Your task to perform on an android device: Open the calendar and show me this week's events? Image 0: 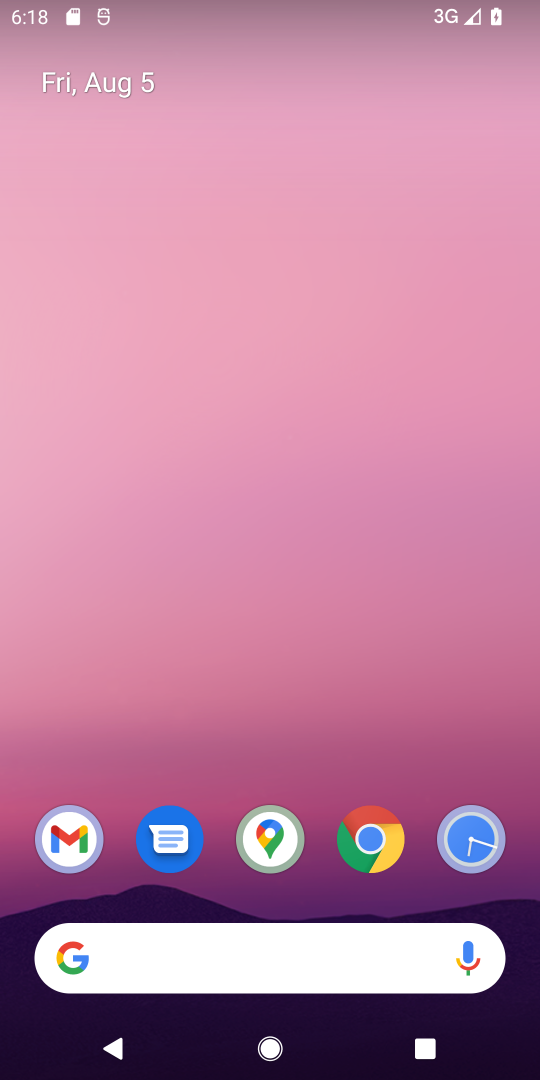
Step 0: drag from (236, 632) to (236, 146)
Your task to perform on an android device: Open the calendar and show me this week's events? Image 1: 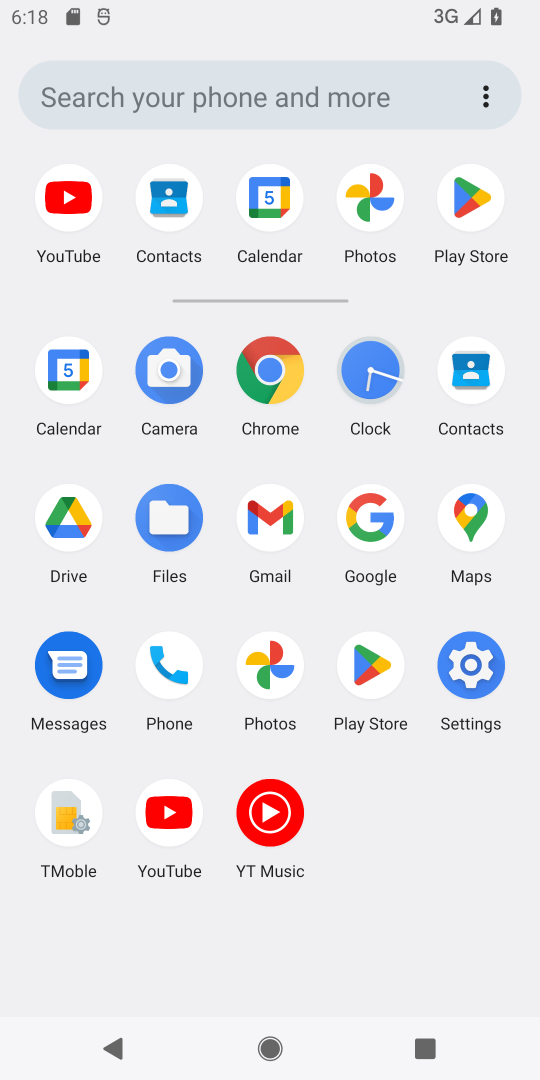
Step 1: click (55, 375)
Your task to perform on an android device: Open the calendar and show me this week's events? Image 2: 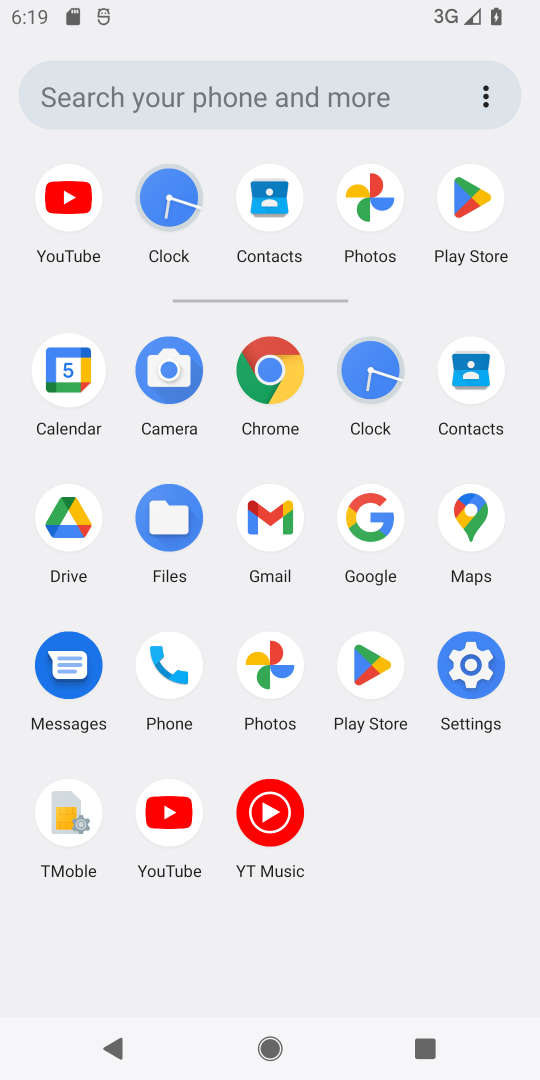
Step 2: click (83, 377)
Your task to perform on an android device: Open the calendar and show me this week's events? Image 3: 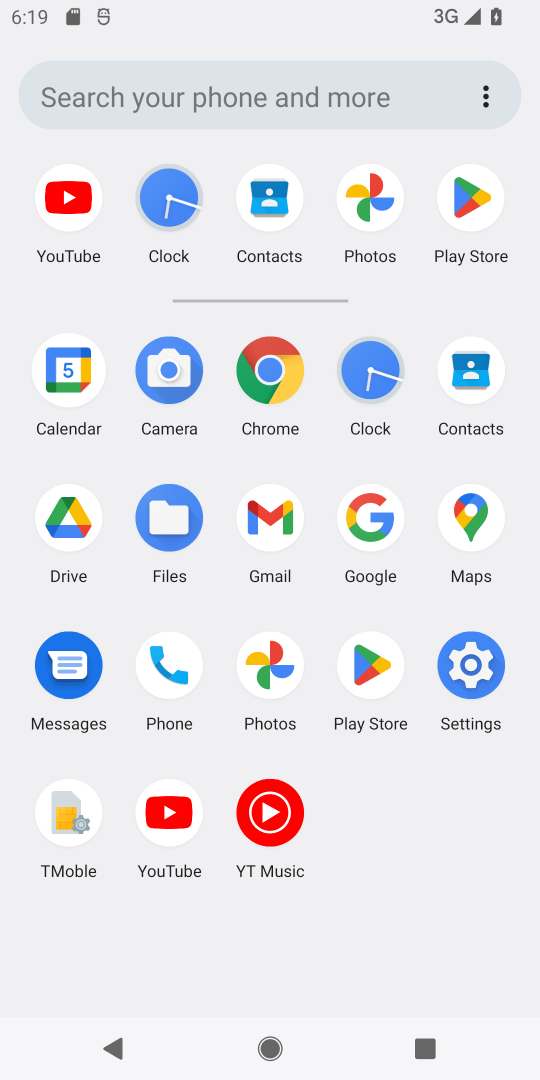
Step 3: click (78, 362)
Your task to perform on an android device: Open the calendar and show me this week's events? Image 4: 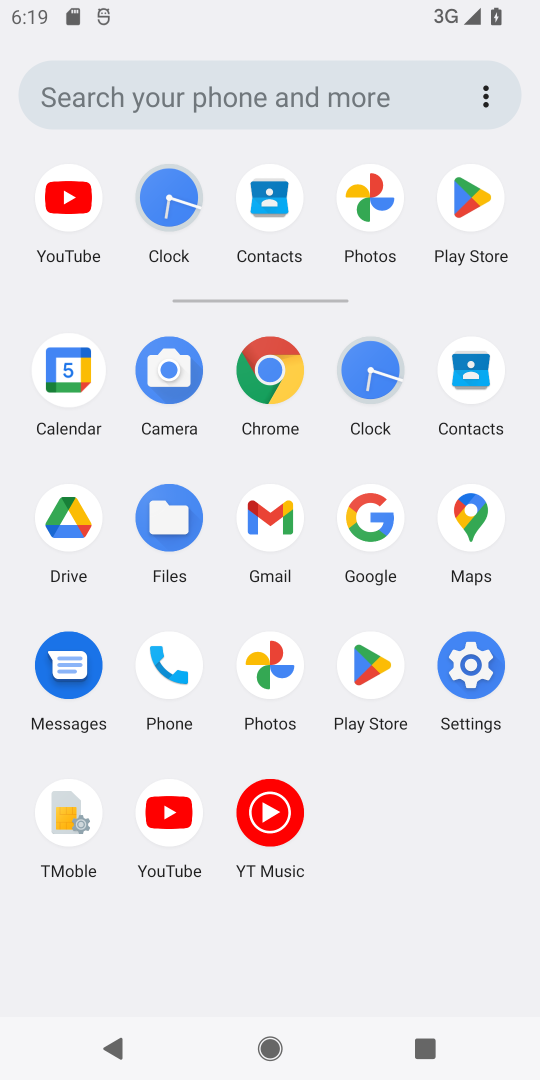
Step 4: click (52, 384)
Your task to perform on an android device: Open the calendar and show me this week's events? Image 5: 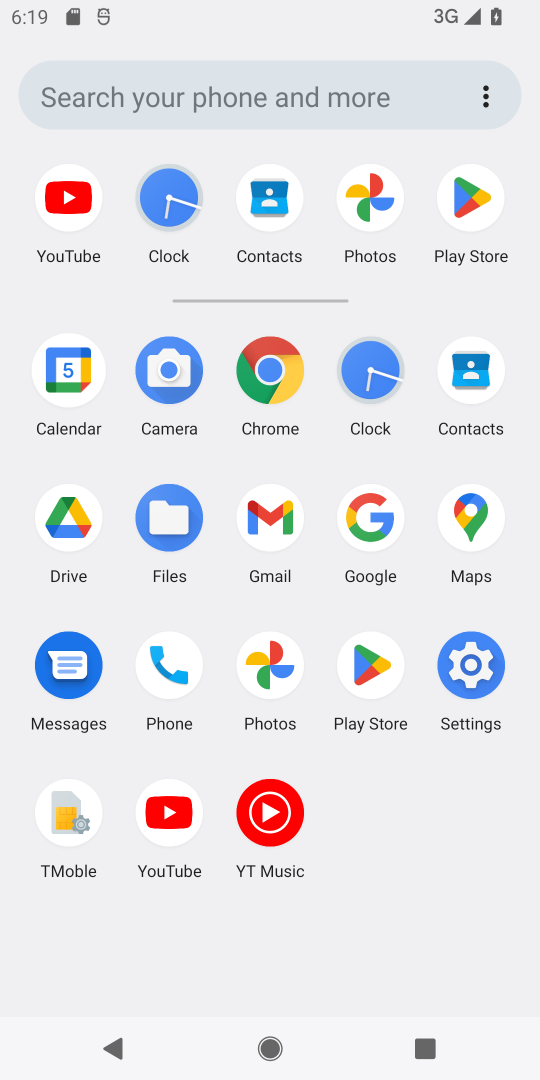
Step 5: click (71, 356)
Your task to perform on an android device: Open the calendar and show me this week's events? Image 6: 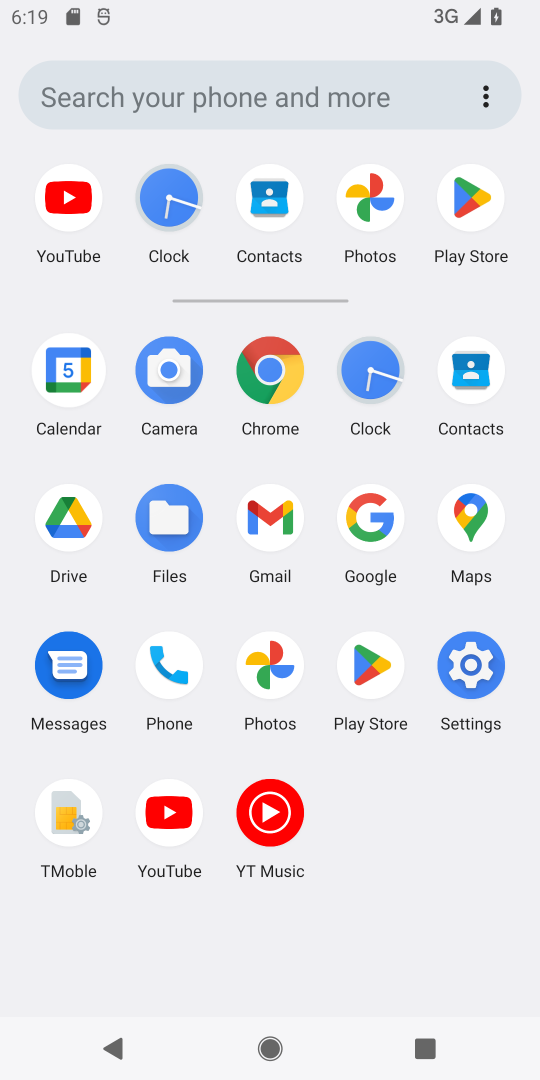
Step 6: click (84, 358)
Your task to perform on an android device: Open the calendar and show me this week's events? Image 7: 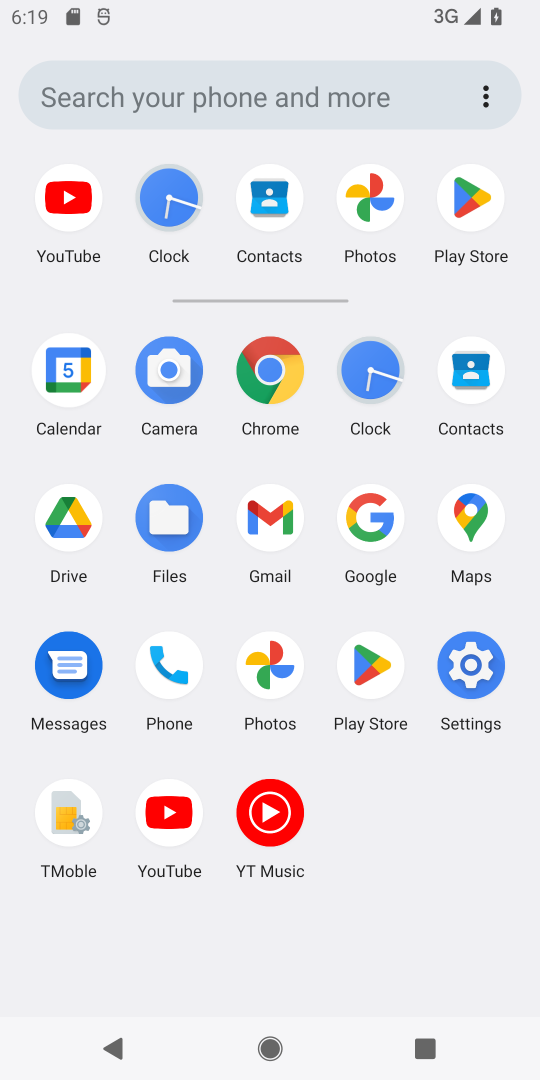
Step 7: click (77, 369)
Your task to perform on an android device: Open the calendar and show me this week's events? Image 8: 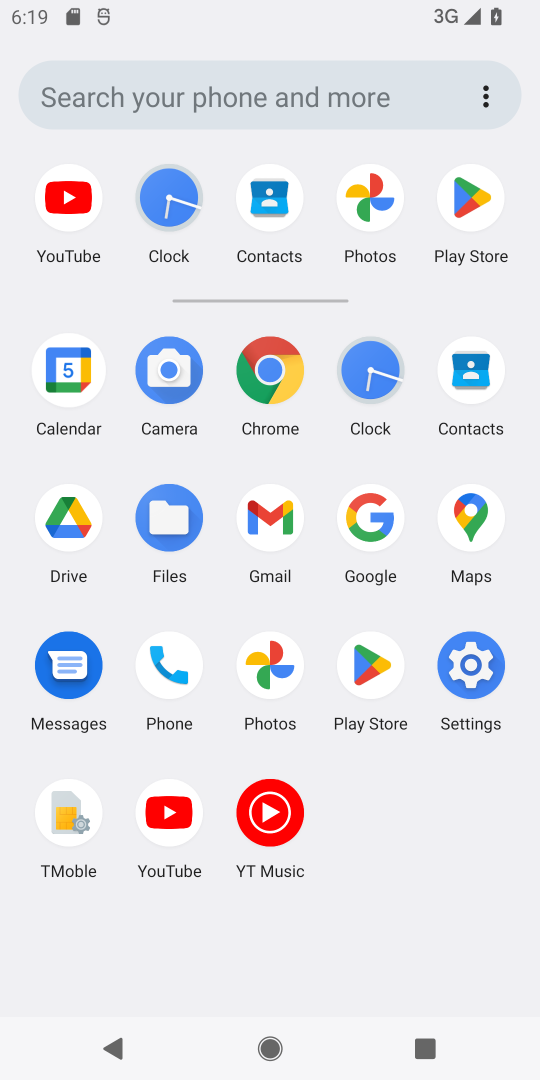
Step 8: task complete